Your task to perform on an android device: turn off wifi Image 0: 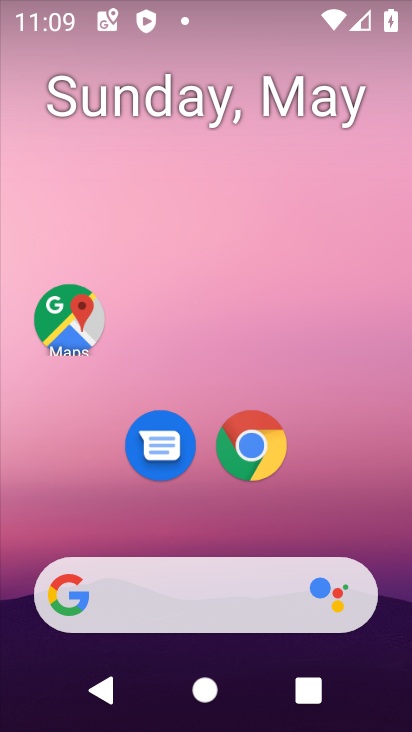
Step 0: drag from (201, 512) to (277, 122)
Your task to perform on an android device: turn off wifi Image 1: 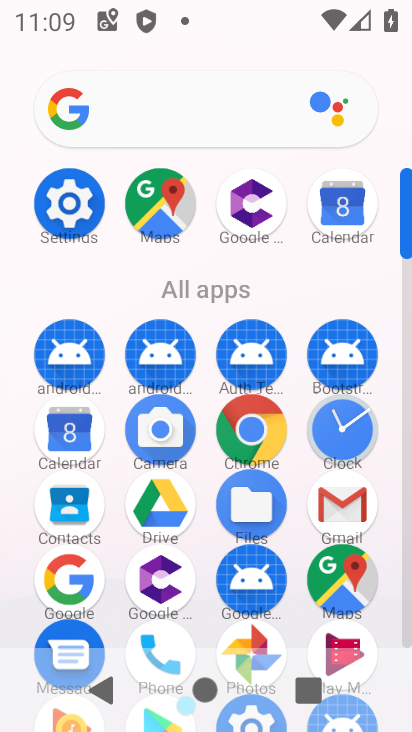
Step 1: click (66, 207)
Your task to perform on an android device: turn off wifi Image 2: 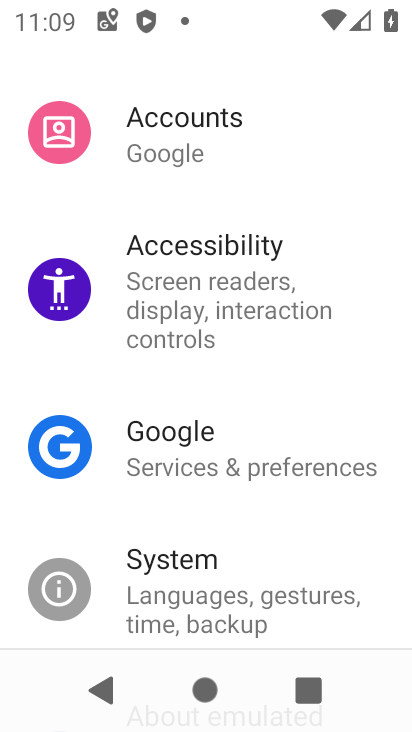
Step 2: drag from (282, 174) to (273, 665)
Your task to perform on an android device: turn off wifi Image 3: 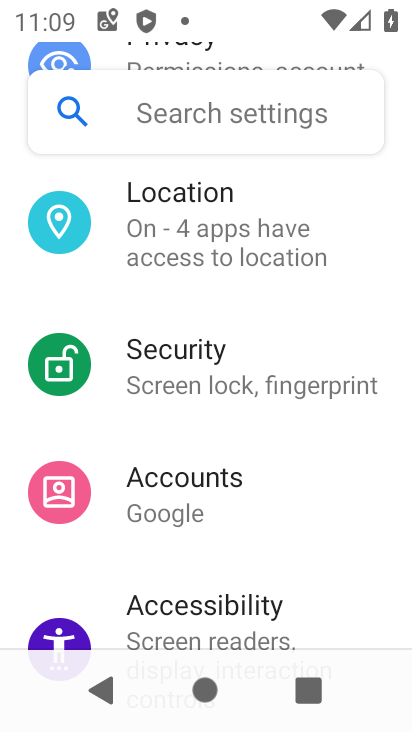
Step 3: drag from (254, 189) to (235, 718)
Your task to perform on an android device: turn off wifi Image 4: 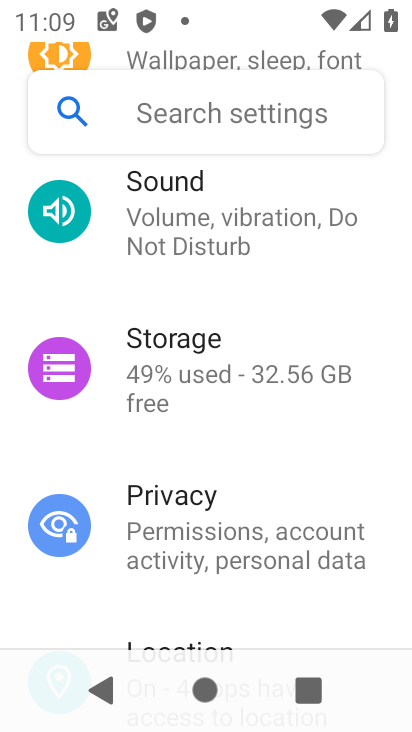
Step 4: drag from (230, 170) to (213, 682)
Your task to perform on an android device: turn off wifi Image 5: 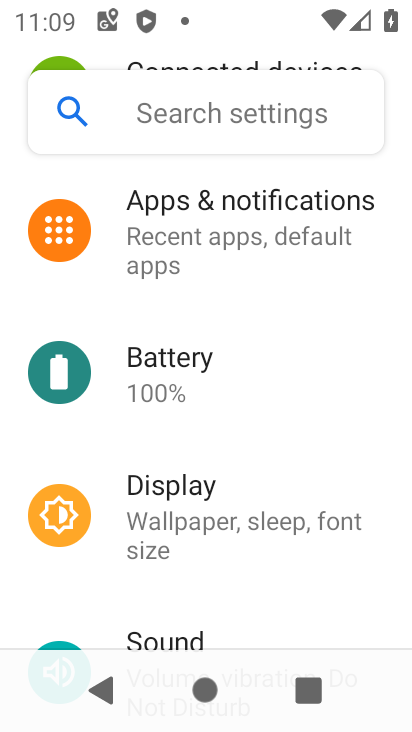
Step 5: drag from (245, 166) to (244, 687)
Your task to perform on an android device: turn off wifi Image 6: 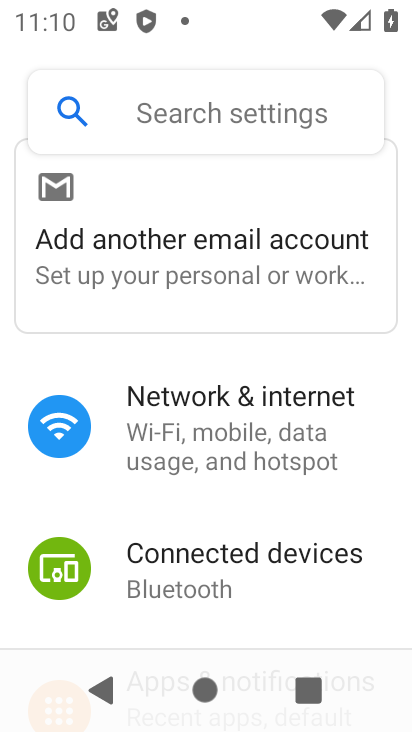
Step 6: click (237, 449)
Your task to perform on an android device: turn off wifi Image 7: 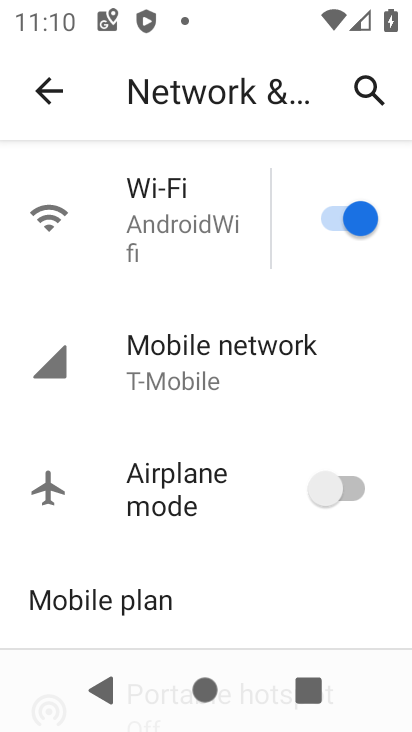
Step 7: click (344, 223)
Your task to perform on an android device: turn off wifi Image 8: 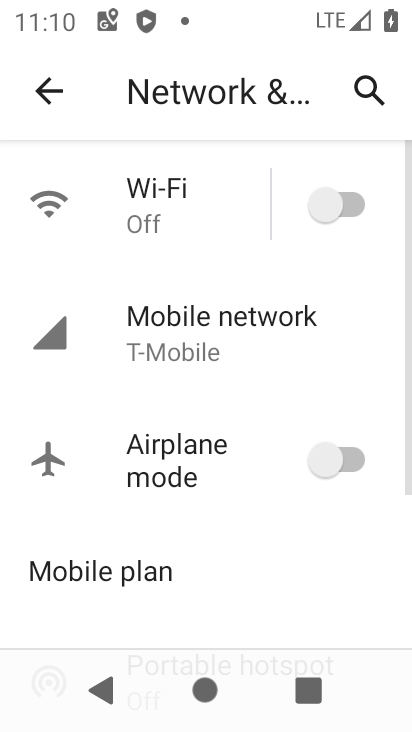
Step 8: task complete